Your task to perform on an android device: Open the Play Movies app and select the watchlist tab. Image 0: 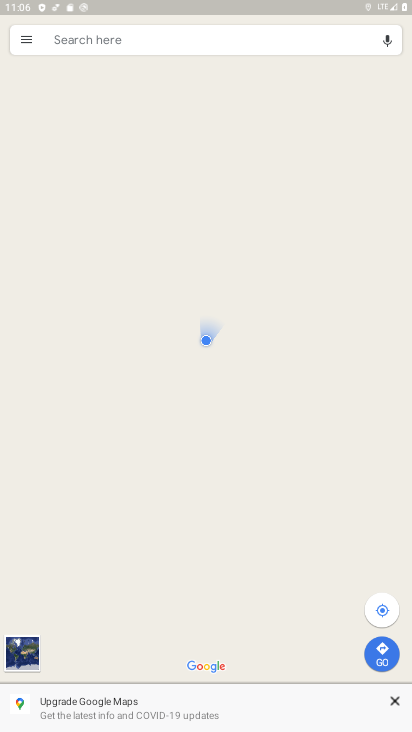
Step 0: press back button
Your task to perform on an android device: Open the Play Movies app and select the watchlist tab. Image 1: 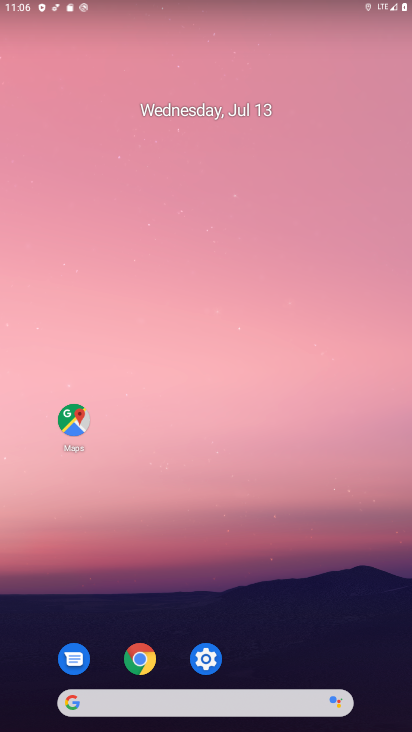
Step 1: drag from (217, 250) to (155, 73)
Your task to perform on an android device: Open the Play Movies app and select the watchlist tab. Image 2: 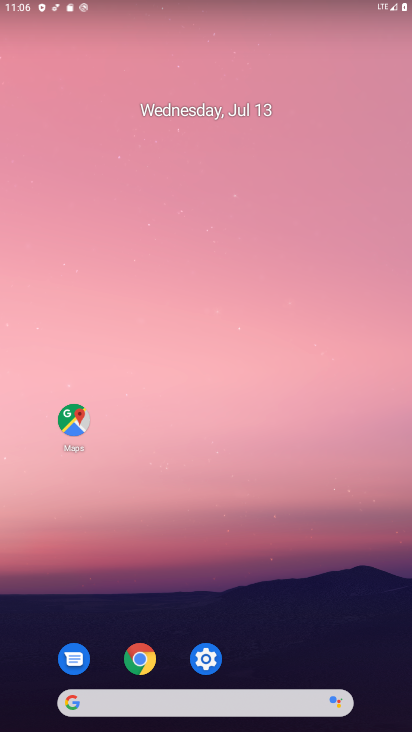
Step 2: drag from (241, 560) to (225, 415)
Your task to perform on an android device: Open the Play Movies app and select the watchlist tab. Image 3: 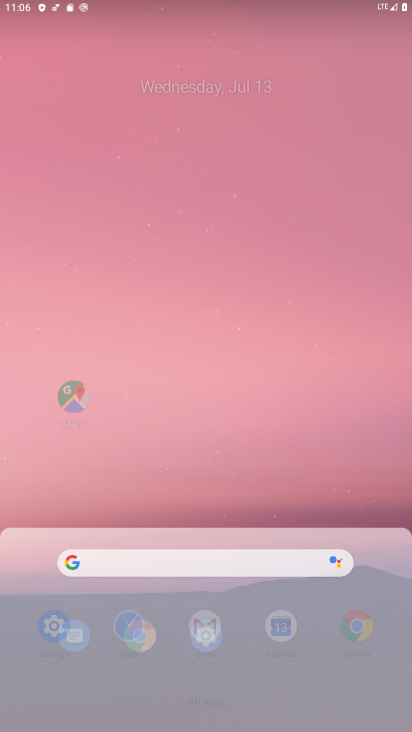
Step 3: click (139, 12)
Your task to perform on an android device: Open the Play Movies app and select the watchlist tab. Image 4: 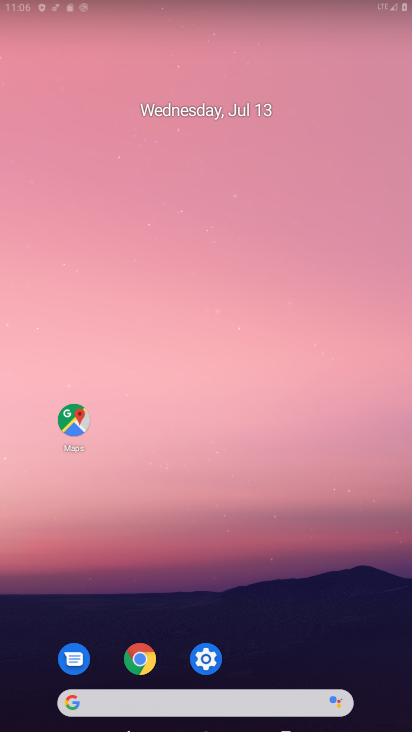
Step 4: drag from (238, 622) to (180, 127)
Your task to perform on an android device: Open the Play Movies app and select the watchlist tab. Image 5: 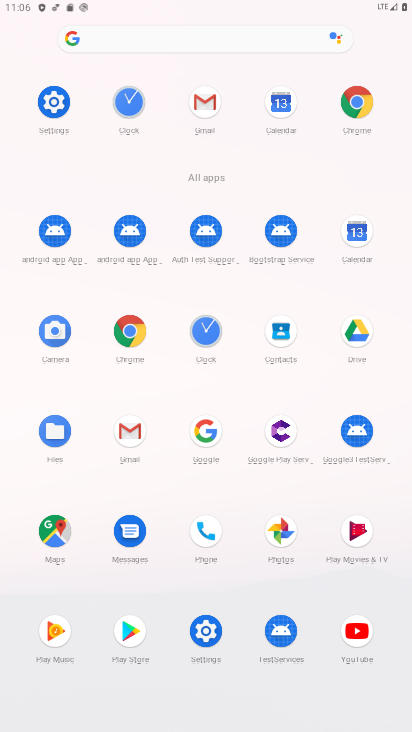
Step 5: click (359, 526)
Your task to perform on an android device: Open the Play Movies app and select the watchlist tab. Image 6: 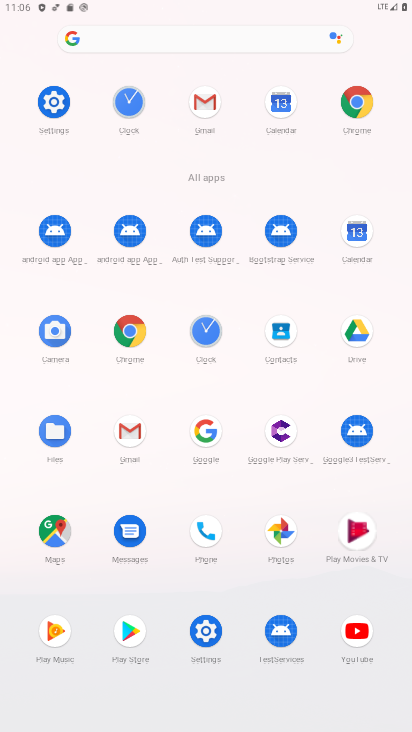
Step 6: click (359, 526)
Your task to perform on an android device: Open the Play Movies app and select the watchlist tab. Image 7: 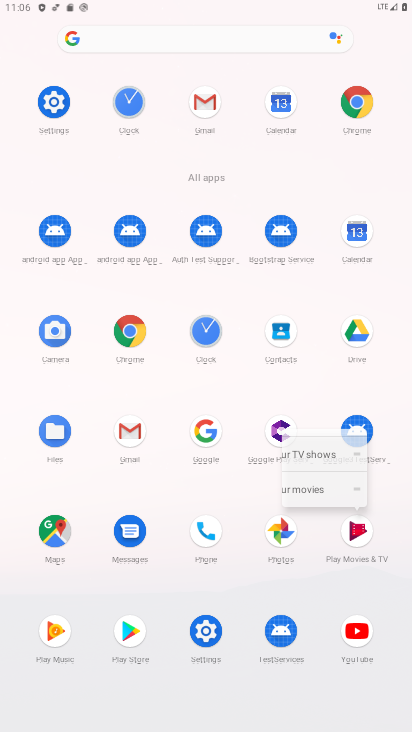
Step 7: click (360, 527)
Your task to perform on an android device: Open the Play Movies app and select the watchlist tab. Image 8: 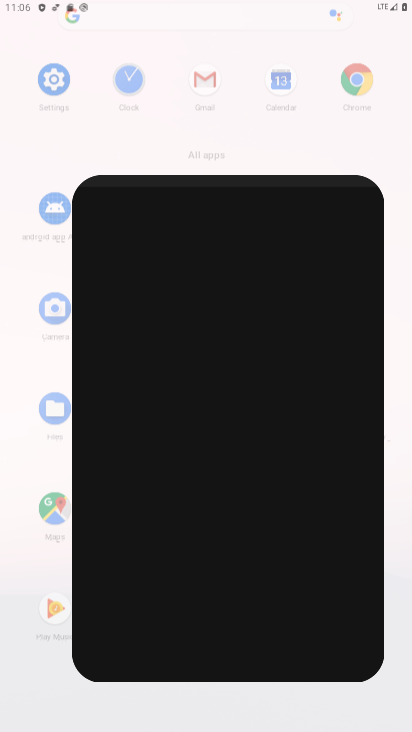
Step 8: click (361, 530)
Your task to perform on an android device: Open the Play Movies app and select the watchlist tab. Image 9: 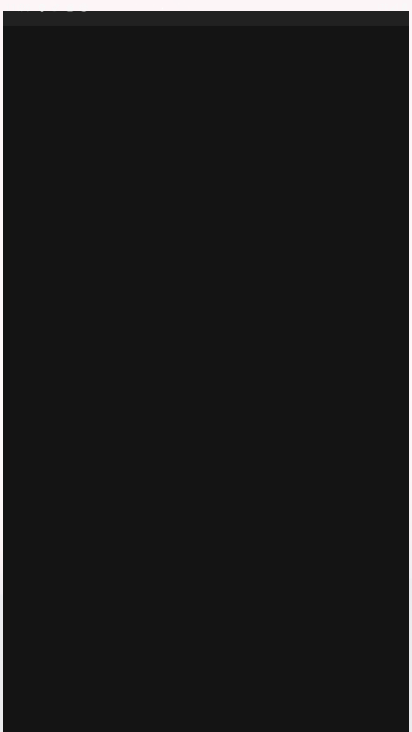
Step 9: click (361, 530)
Your task to perform on an android device: Open the Play Movies app and select the watchlist tab. Image 10: 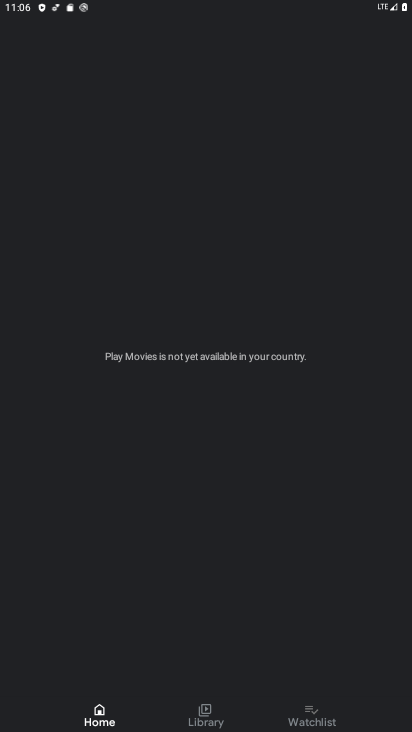
Step 10: click (319, 710)
Your task to perform on an android device: Open the Play Movies app and select the watchlist tab. Image 11: 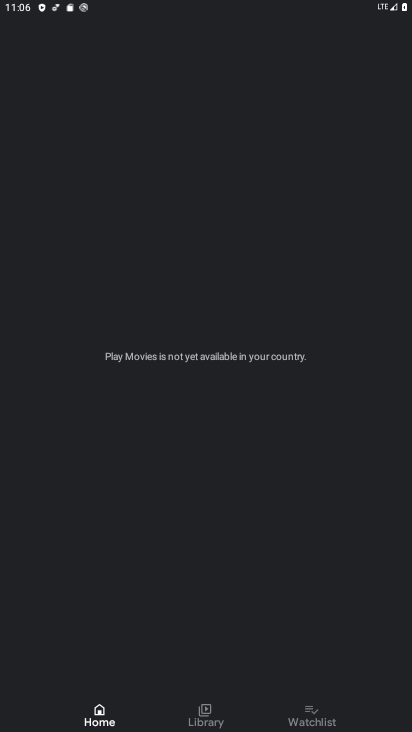
Step 11: click (314, 711)
Your task to perform on an android device: Open the Play Movies app and select the watchlist tab. Image 12: 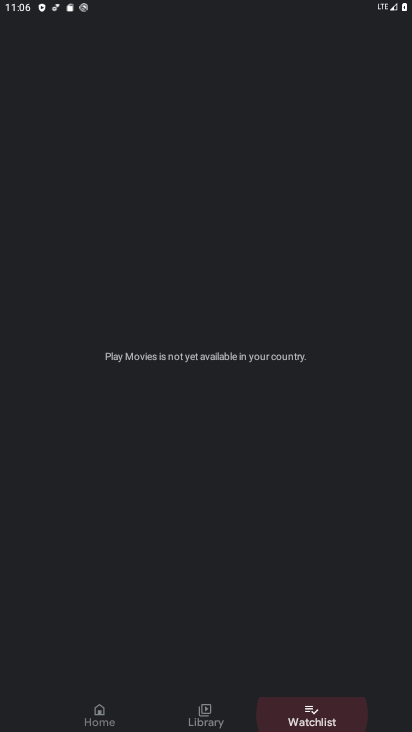
Step 12: click (314, 711)
Your task to perform on an android device: Open the Play Movies app and select the watchlist tab. Image 13: 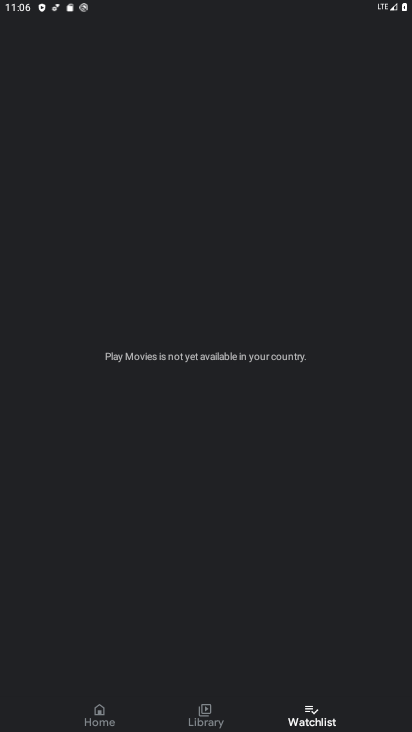
Step 13: click (318, 714)
Your task to perform on an android device: Open the Play Movies app and select the watchlist tab. Image 14: 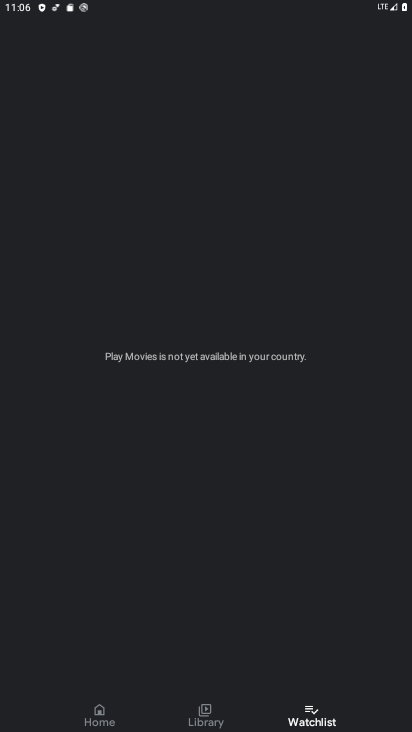
Step 14: task complete